Your task to perform on an android device: refresh tabs in the chrome app Image 0: 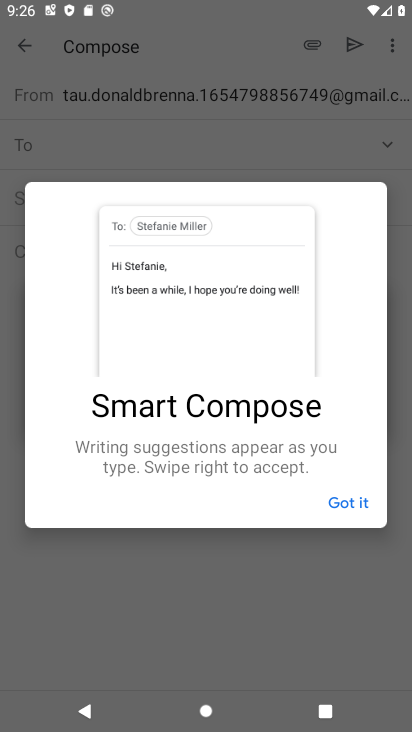
Step 0: press home button
Your task to perform on an android device: refresh tabs in the chrome app Image 1: 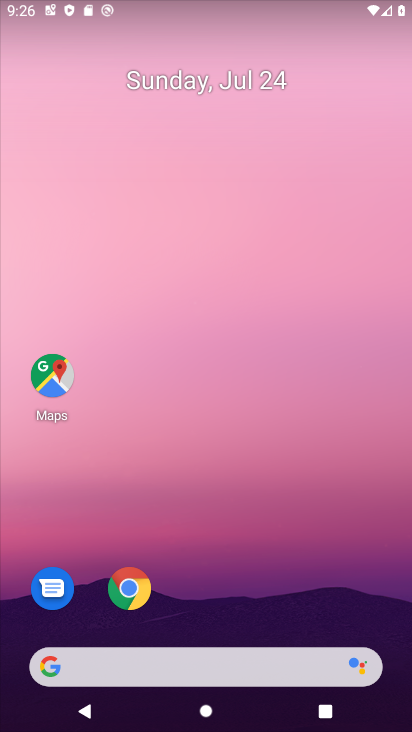
Step 1: click (135, 594)
Your task to perform on an android device: refresh tabs in the chrome app Image 2: 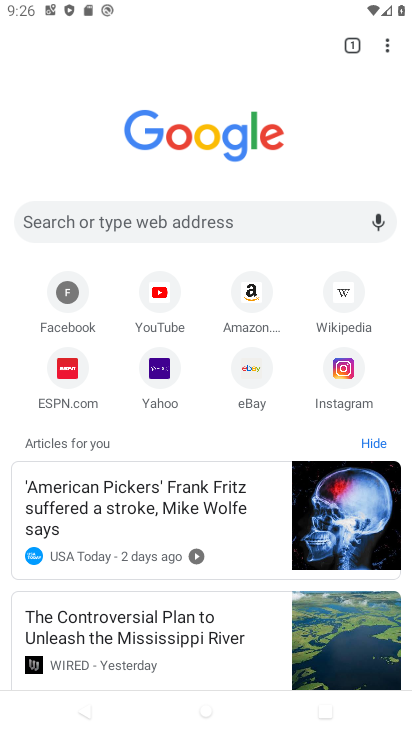
Step 2: click (392, 46)
Your task to perform on an android device: refresh tabs in the chrome app Image 3: 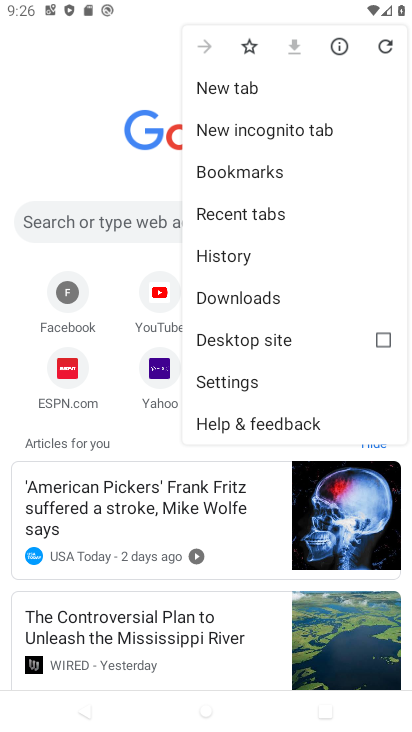
Step 3: click (380, 45)
Your task to perform on an android device: refresh tabs in the chrome app Image 4: 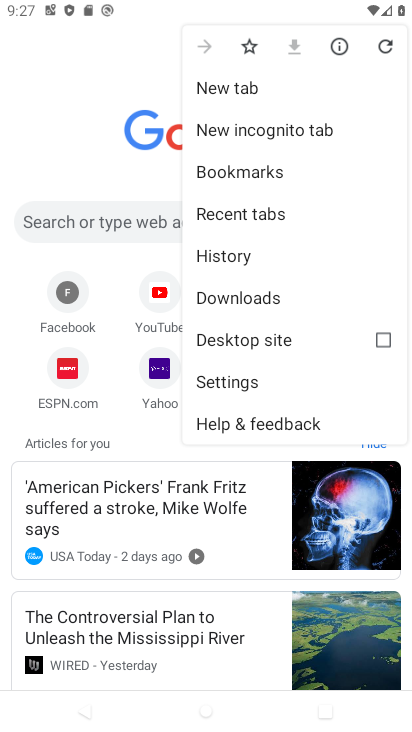
Step 4: click (385, 45)
Your task to perform on an android device: refresh tabs in the chrome app Image 5: 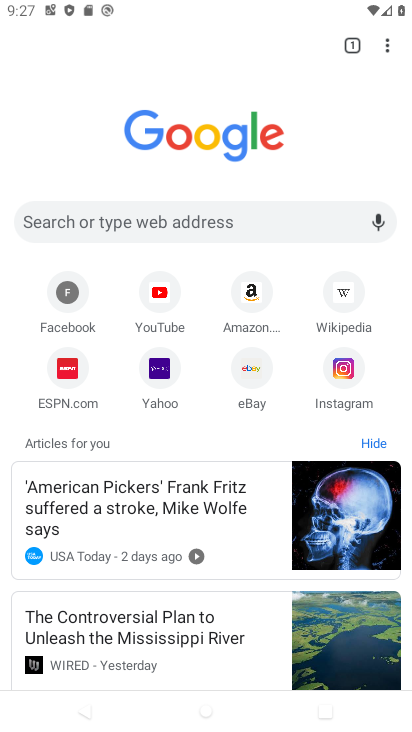
Step 5: task complete